Your task to perform on an android device: turn off sleep mode Image 0: 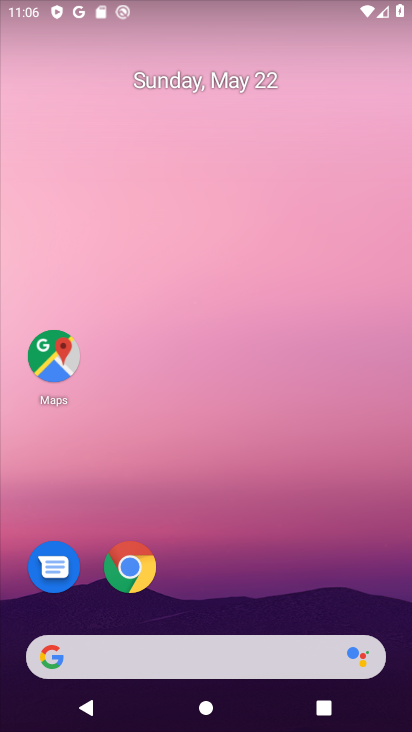
Step 0: drag from (216, 608) to (259, 5)
Your task to perform on an android device: turn off sleep mode Image 1: 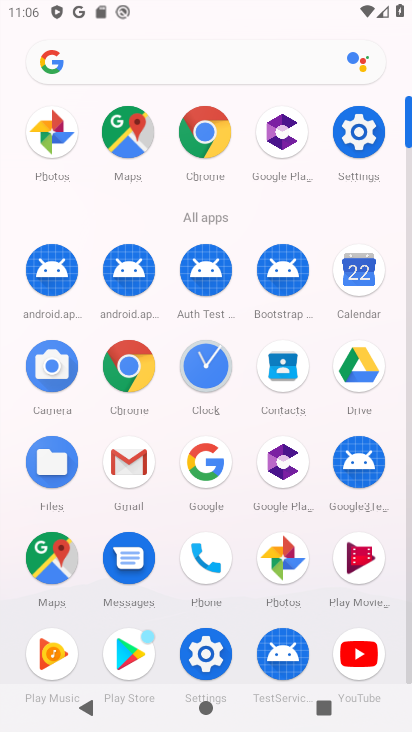
Step 1: click (359, 123)
Your task to perform on an android device: turn off sleep mode Image 2: 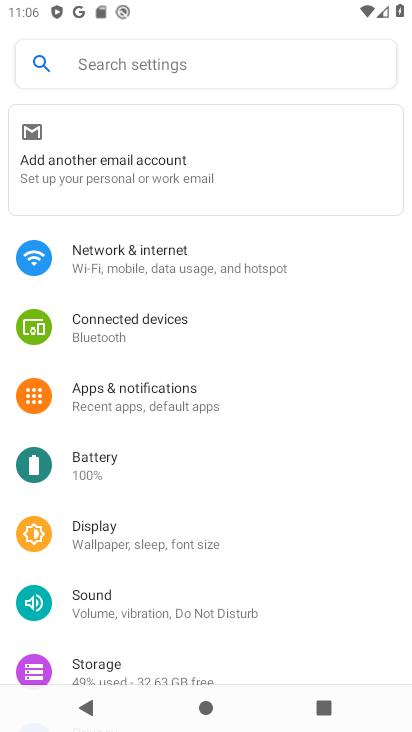
Step 2: task complete